Your task to perform on an android device: Open Chrome and go to settings Image 0: 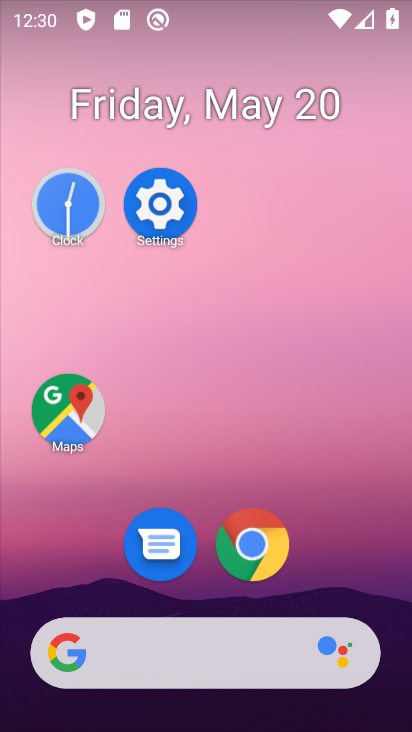
Step 0: click (258, 555)
Your task to perform on an android device: Open Chrome and go to settings Image 1: 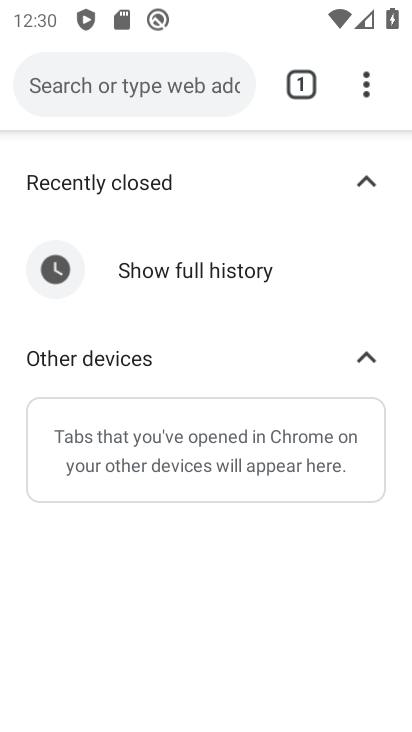
Step 1: click (370, 79)
Your task to perform on an android device: Open Chrome and go to settings Image 2: 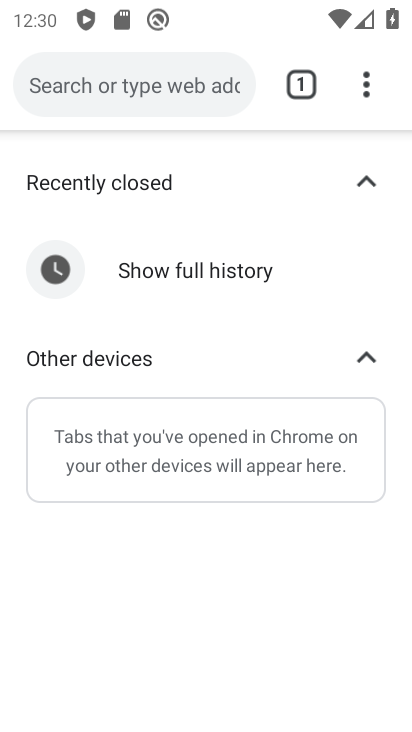
Step 2: click (369, 100)
Your task to perform on an android device: Open Chrome and go to settings Image 3: 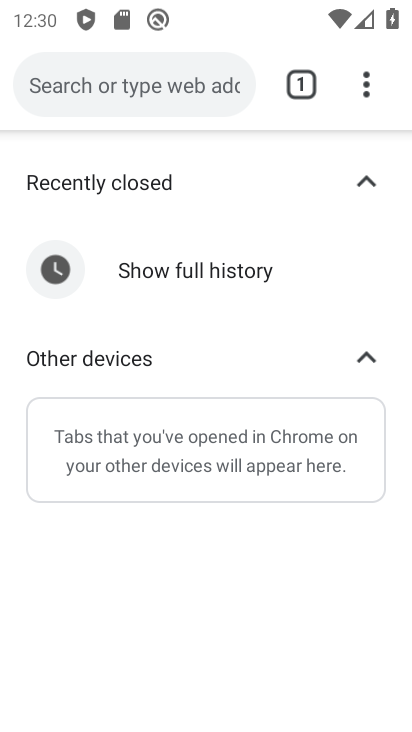
Step 3: click (353, 78)
Your task to perform on an android device: Open Chrome and go to settings Image 4: 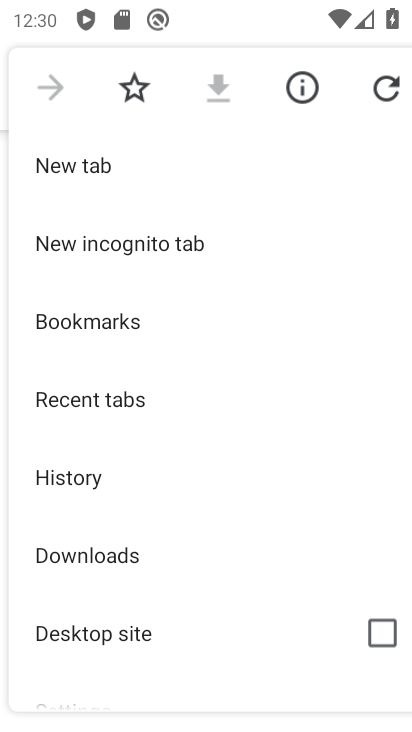
Step 4: drag from (107, 518) to (164, 161)
Your task to perform on an android device: Open Chrome and go to settings Image 5: 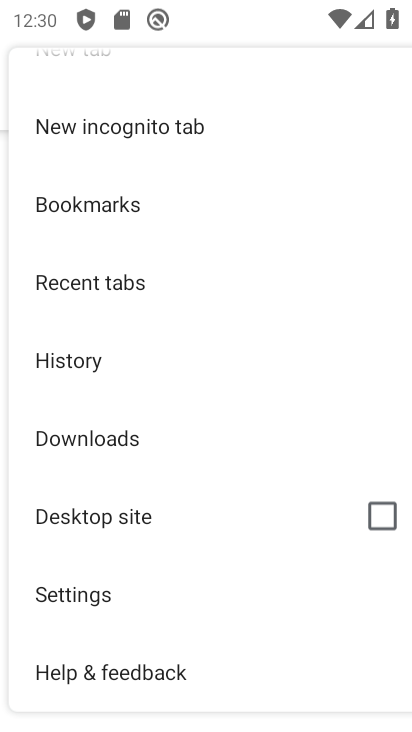
Step 5: click (83, 590)
Your task to perform on an android device: Open Chrome and go to settings Image 6: 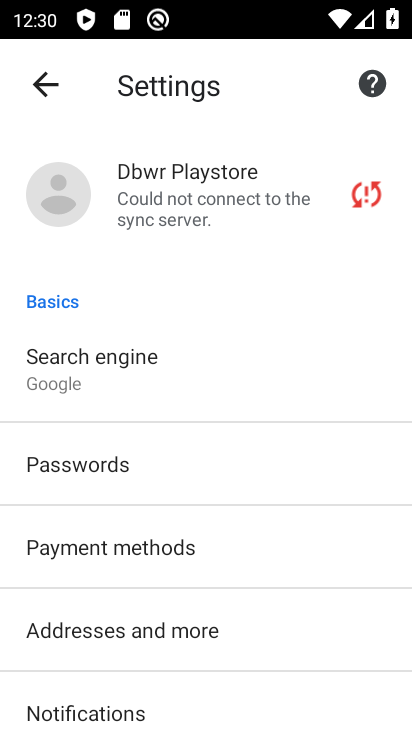
Step 6: task complete